Your task to perform on an android device: Go to Maps Image 0: 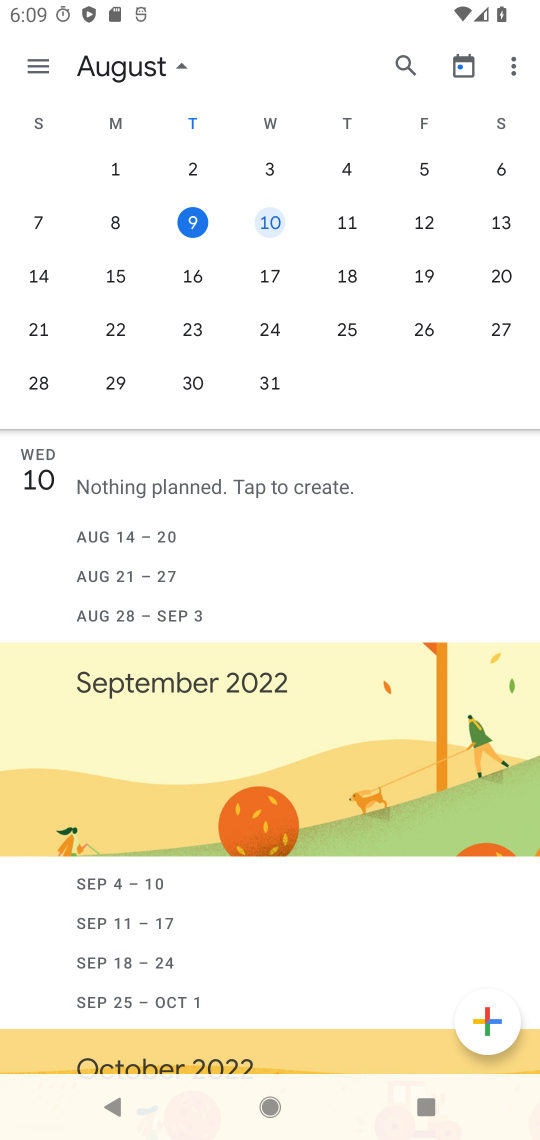
Step 0: press home button
Your task to perform on an android device: Go to Maps Image 1: 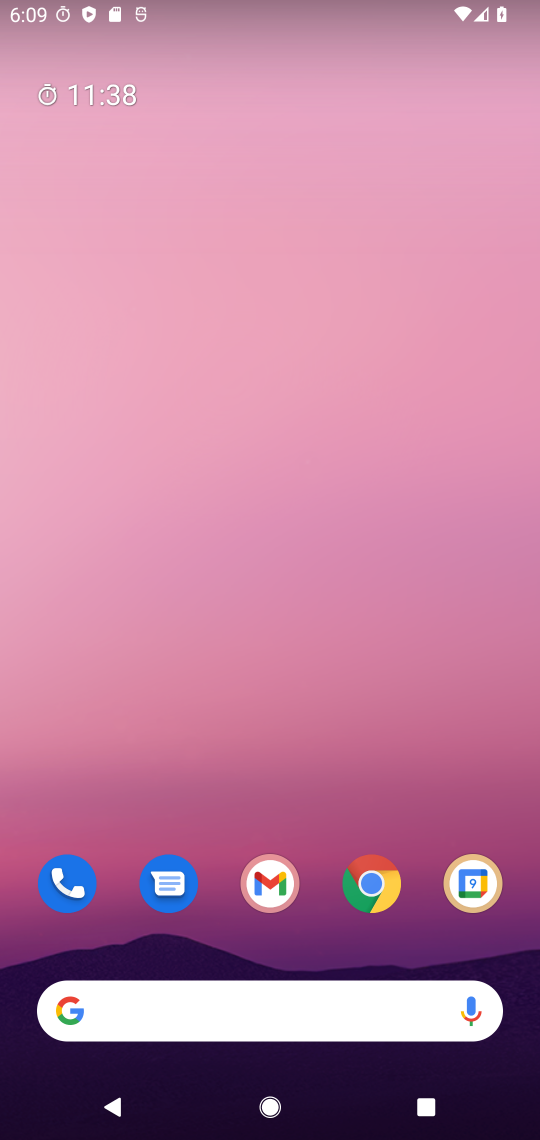
Step 1: drag from (307, 772) to (315, 159)
Your task to perform on an android device: Go to Maps Image 2: 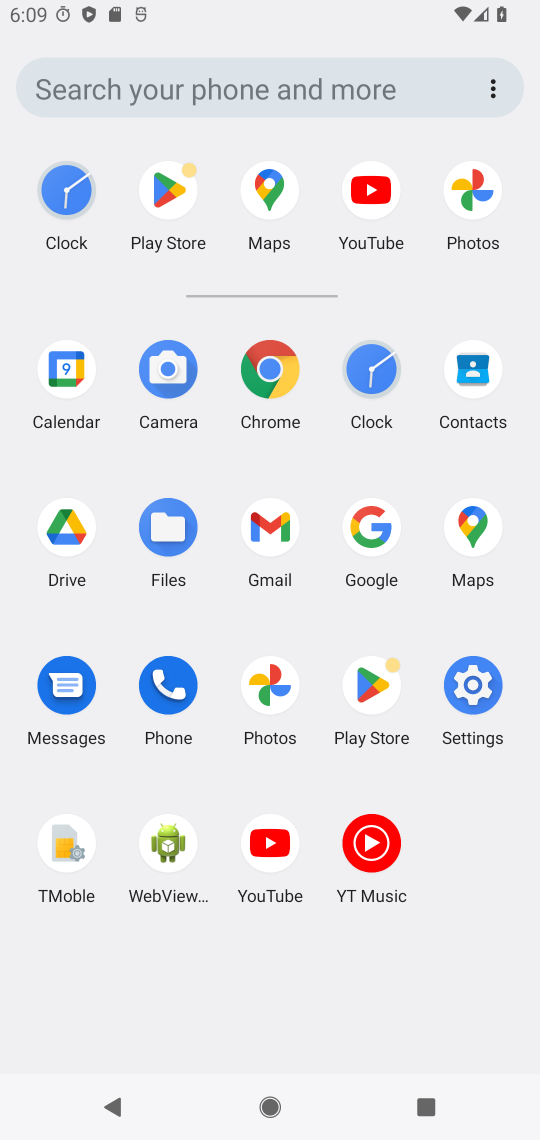
Step 2: click (256, 195)
Your task to perform on an android device: Go to Maps Image 3: 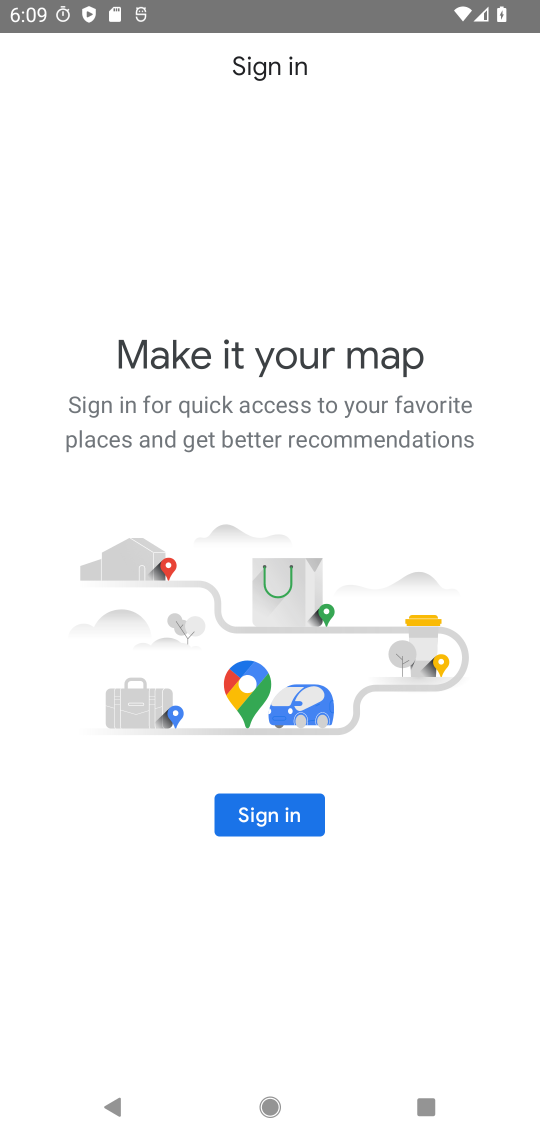
Step 3: task complete